Your task to perform on an android device: Go to settings Image 0: 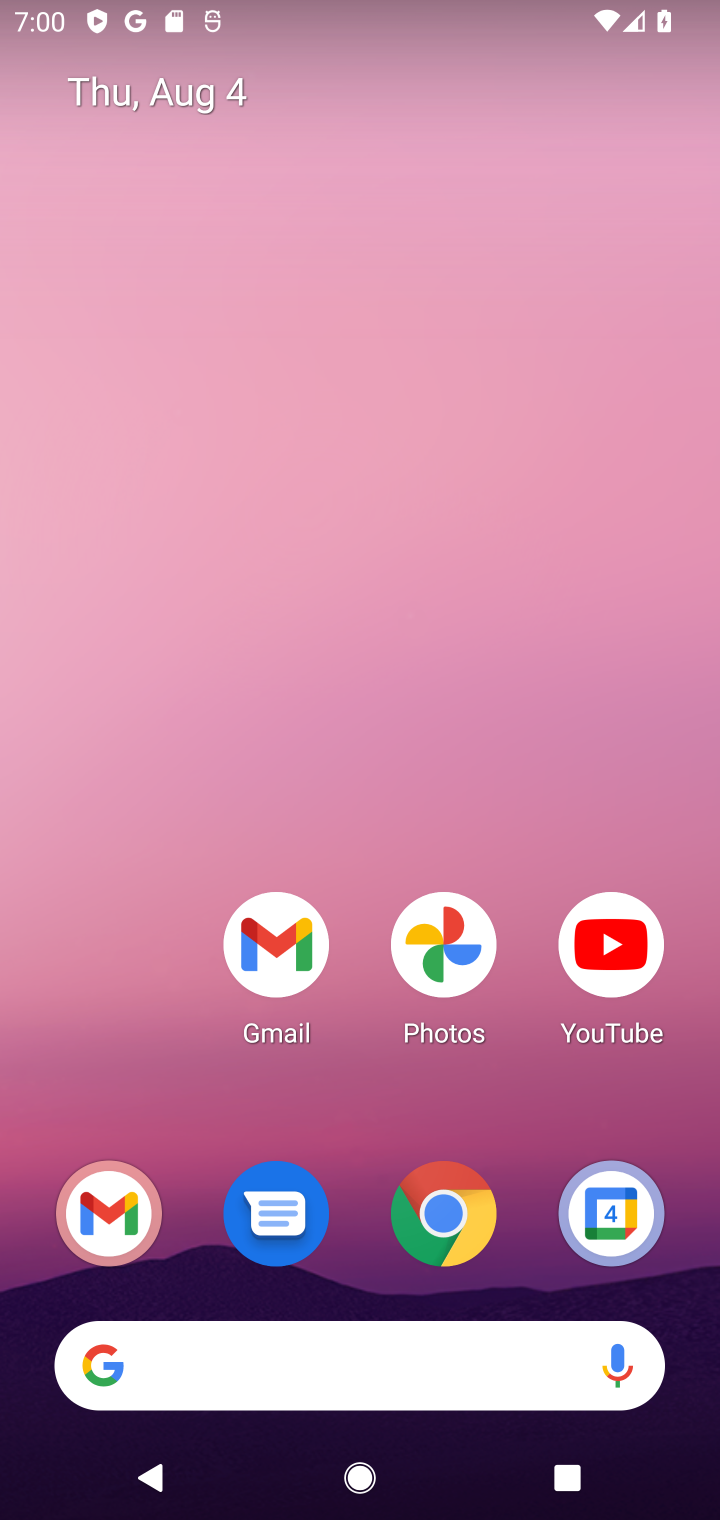
Step 0: drag from (327, 1097) to (314, 61)
Your task to perform on an android device: Go to settings Image 1: 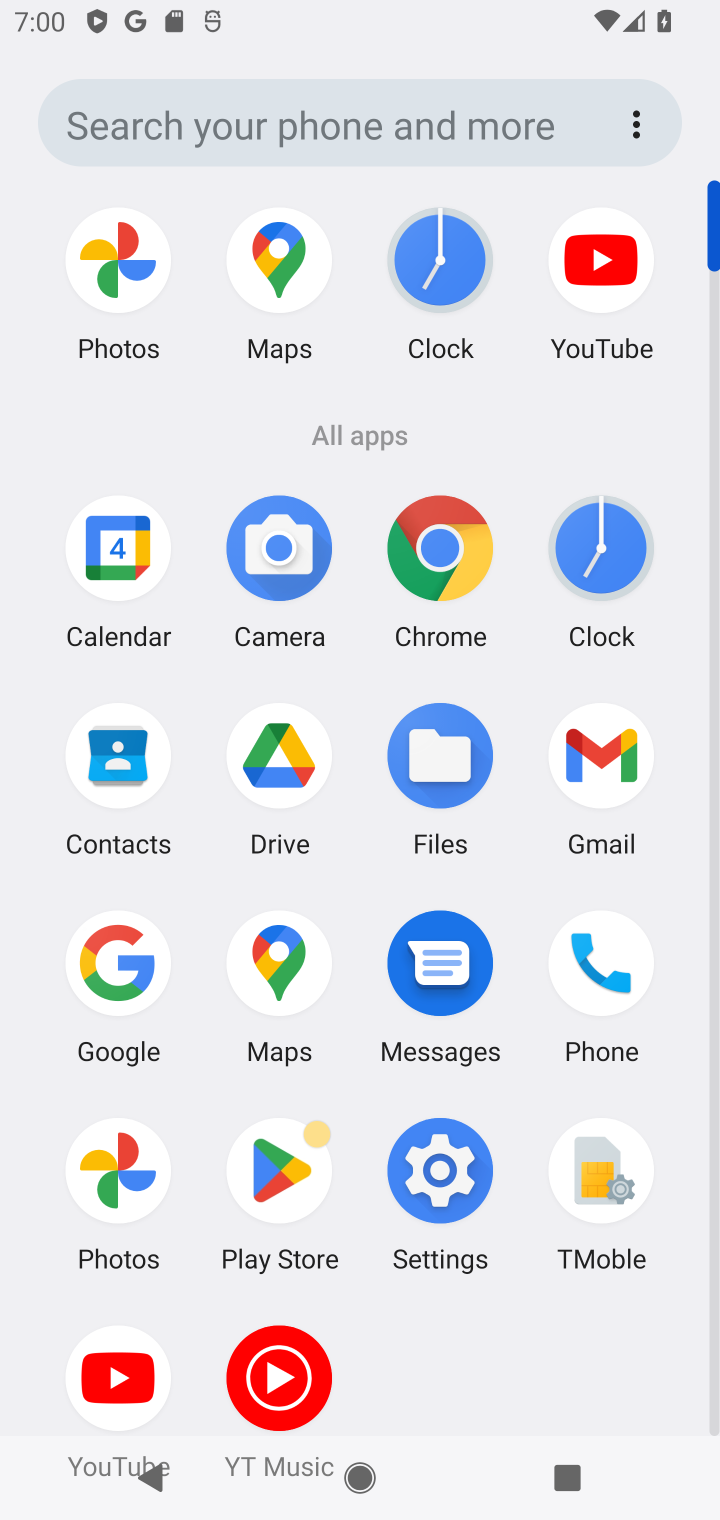
Step 1: click (466, 1175)
Your task to perform on an android device: Go to settings Image 2: 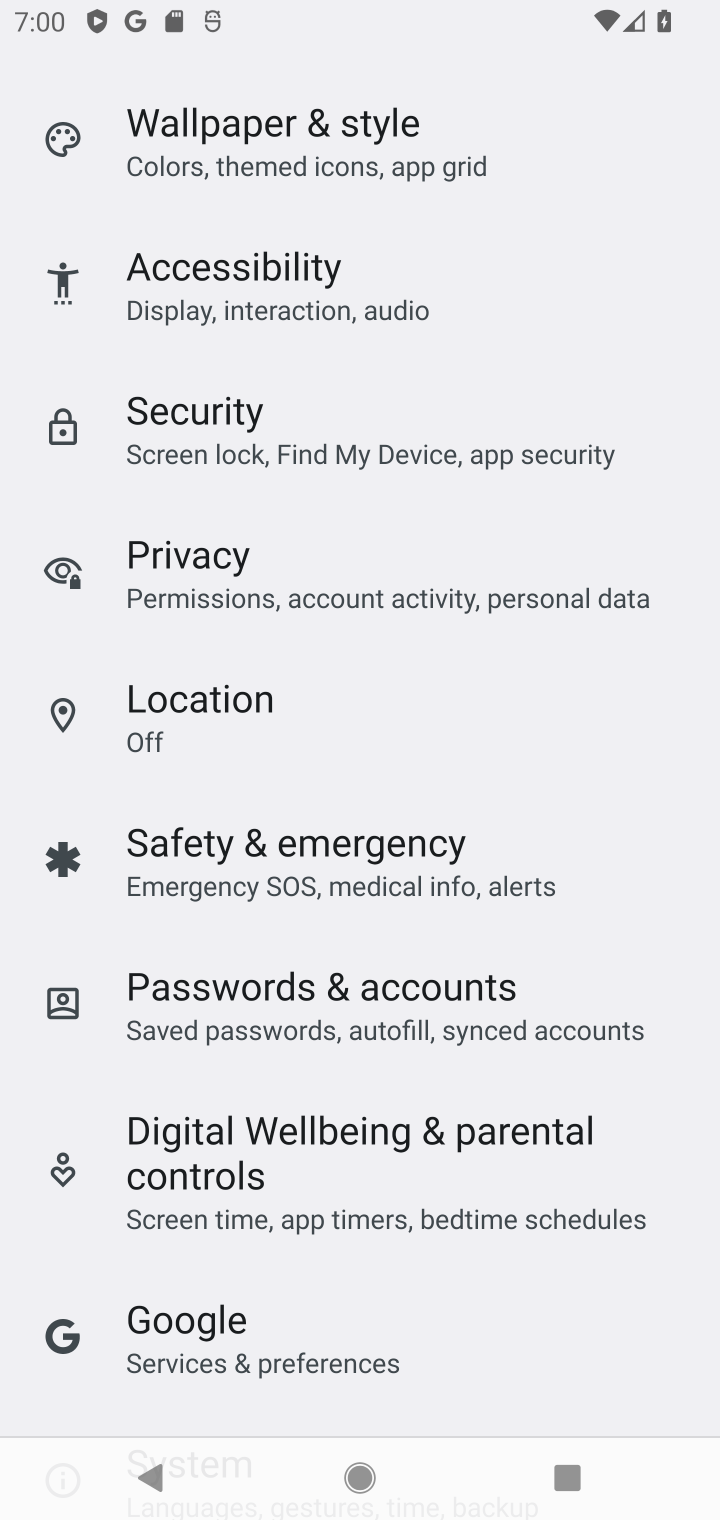
Step 2: task complete